Your task to perform on an android device: change the clock display to show seconds Image 0: 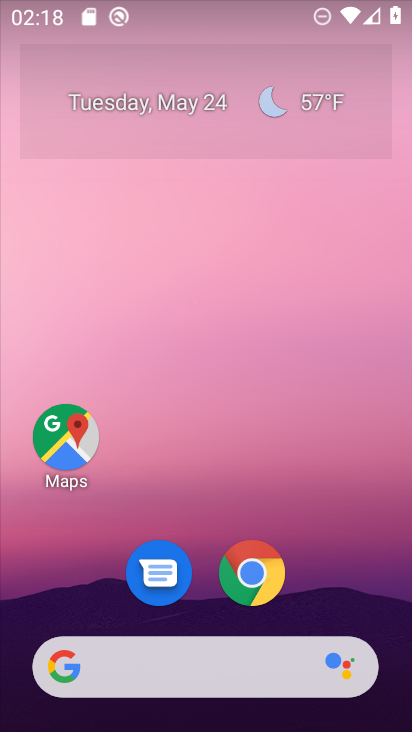
Step 0: drag from (381, 556) to (368, 107)
Your task to perform on an android device: change the clock display to show seconds Image 1: 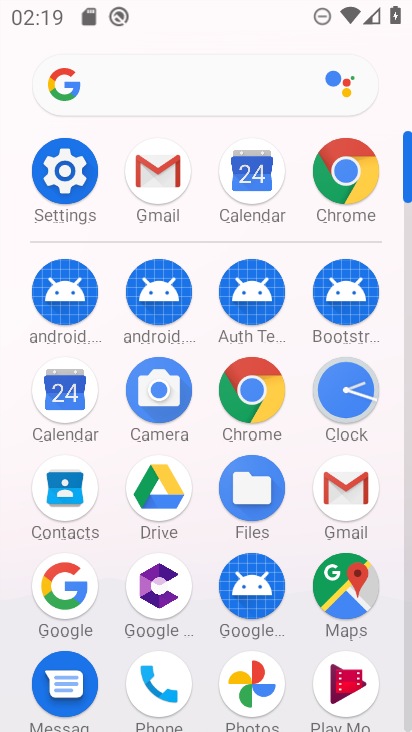
Step 1: click (357, 417)
Your task to perform on an android device: change the clock display to show seconds Image 2: 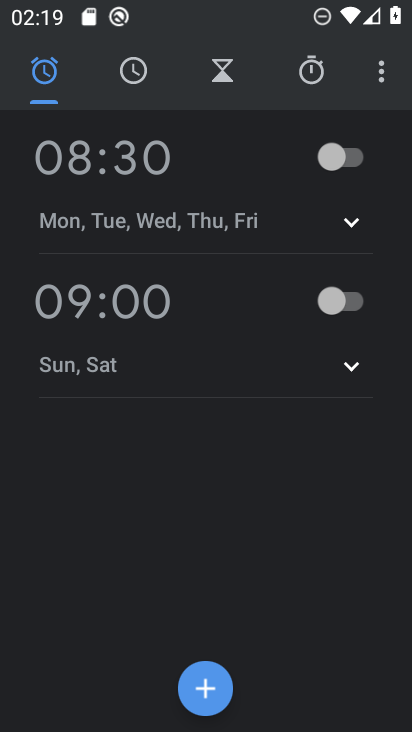
Step 2: click (388, 78)
Your task to perform on an android device: change the clock display to show seconds Image 3: 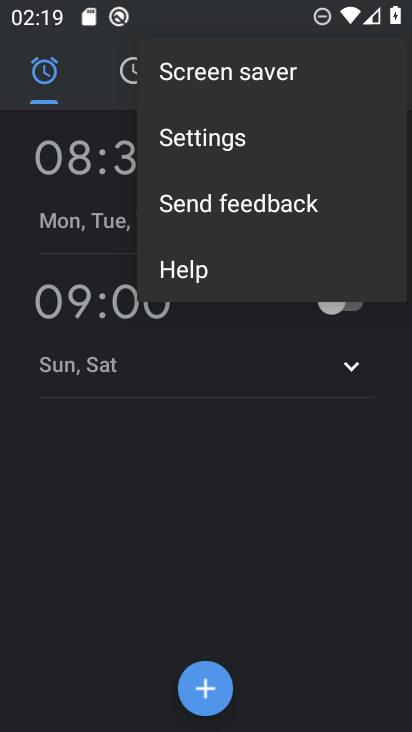
Step 3: click (244, 141)
Your task to perform on an android device: change the clock display to show seconds Image 4: 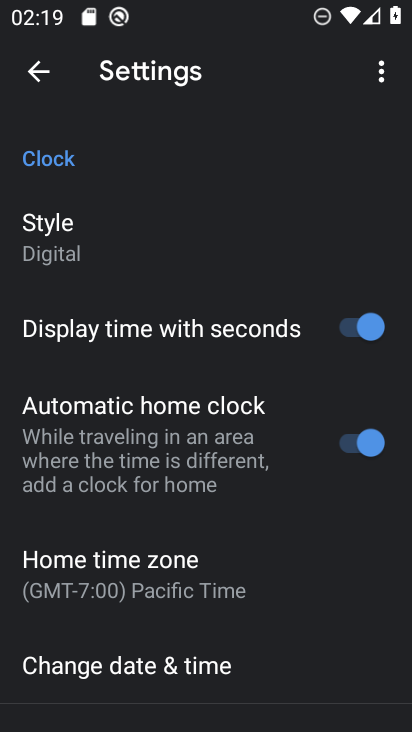
Step 4: click (351, 326)
Your task to perform on an android device: change the clock display to show seconds Image 5: 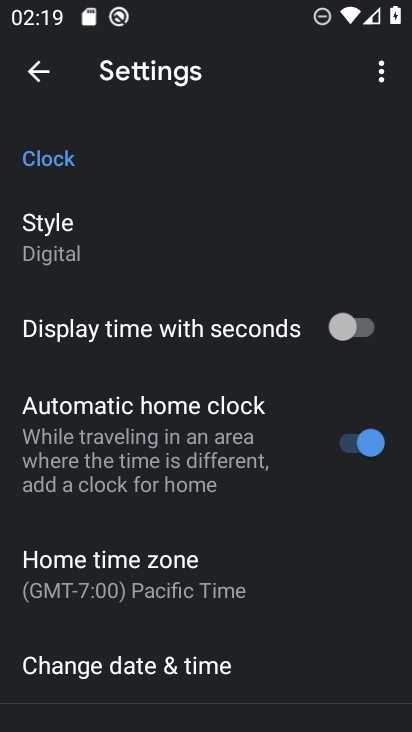
Step 5: task complete